Your task to perform on an android device: Open Youtube and go to "Your channel" Image 0: 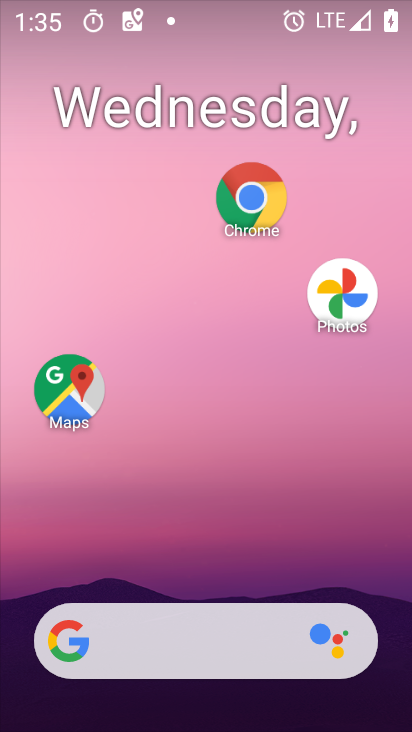
Step 0: drag from (194, 705) to (237, 118)
Your task to perform on an android device: Open Youtube and go to "Your channel" Image 1: 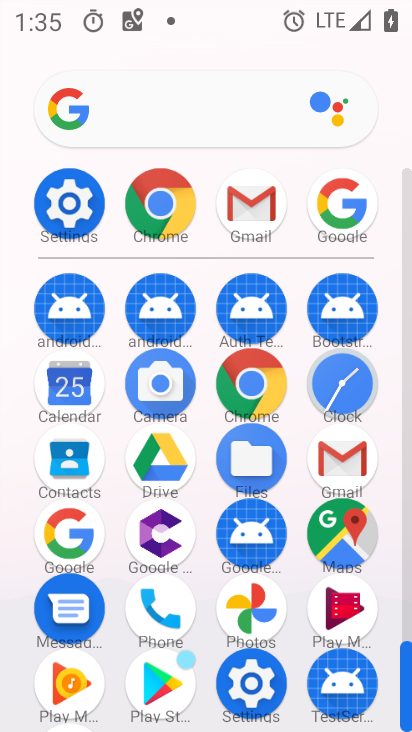
Step 1: drag from (151, 578) to (202, 190)
Your task to perform on an android device: Open Youtube and go to "Your channel" Image 2: 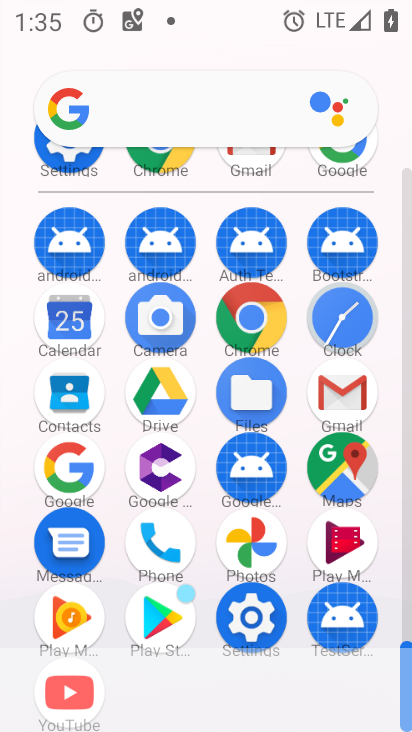
Step 2: drag from (113, 488) to (143, 148)
Your task to perform on an android device: Open Youtube and go to "Your channel" Image 3: 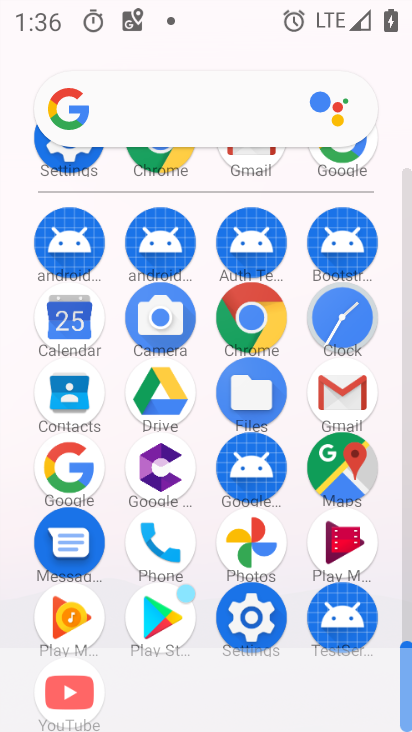
Step 3: drag from (127, 554) to (180, 294)
Your task to perform on an android device: Open Youtube and go to "Your channel" Image 4: 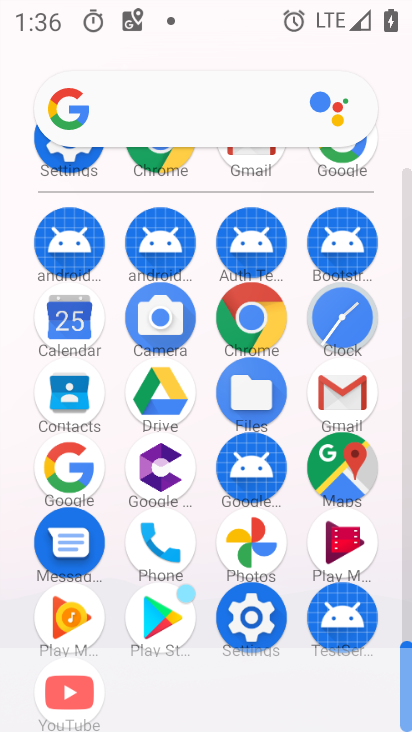
Step 4: click (77, 687)
Your task to perform on an android device: Open Youtube and go to "Your channel" Image 5: 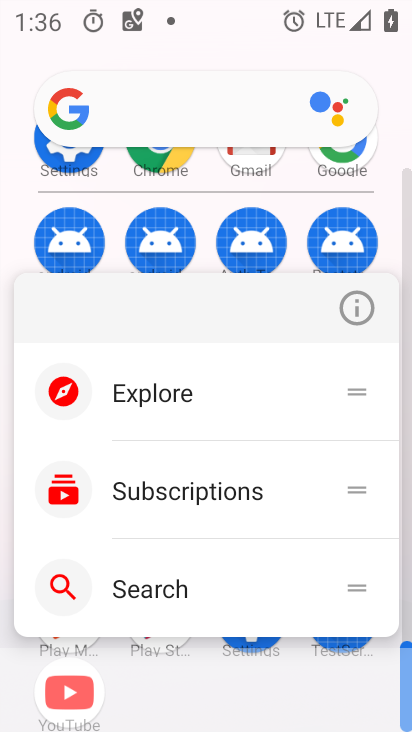
Step 5: click (78, 682)
Your task to perform on an android device: Open Youtube and go to "Your channel" Image 6: 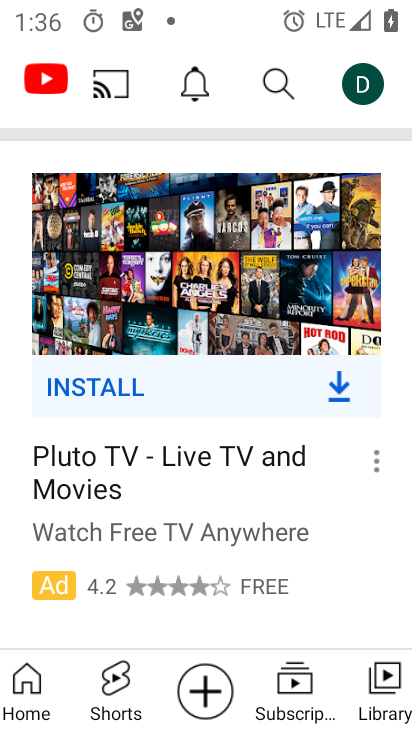
Step 6: click (373, 94)
Your task to perform on an android device: Open Youtube and go to "Your channel" Image 7: 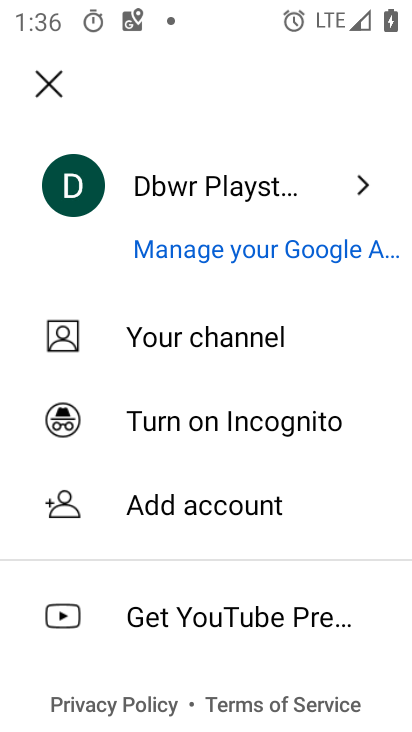
Step 7: click (246, 344)
Your task to perform on an android device: Open Youtube and go to "Your channel" Image 8: 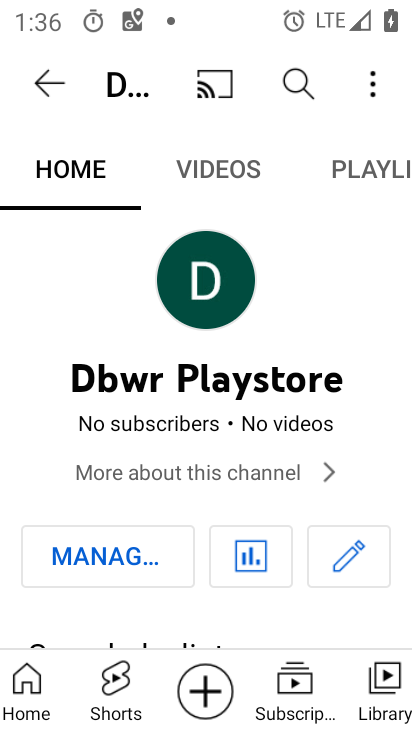
Step 8: task complete